Your task to perform on an android device: add a contact Image 0: 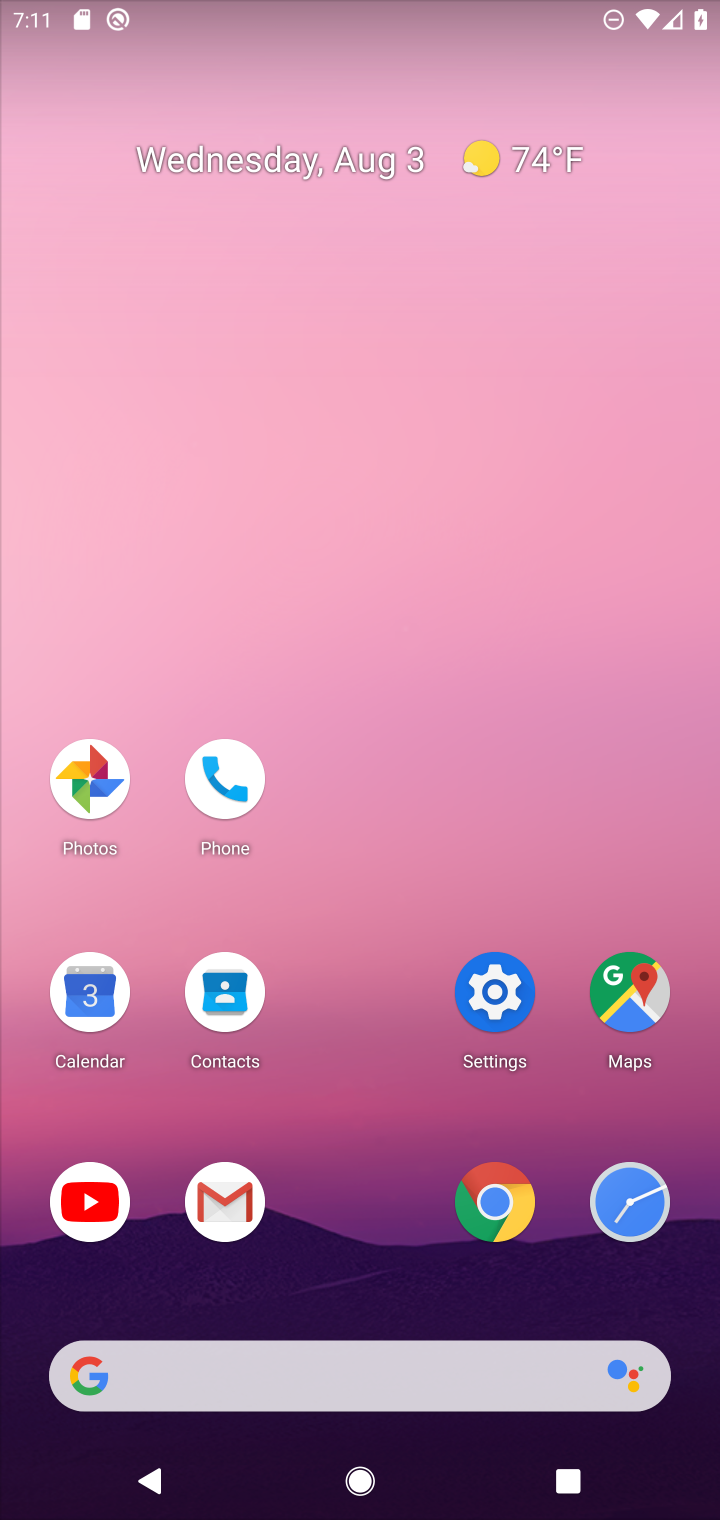
Step 0: click (227, 991)
Your task to perform on an android device: add a contact Image 1: 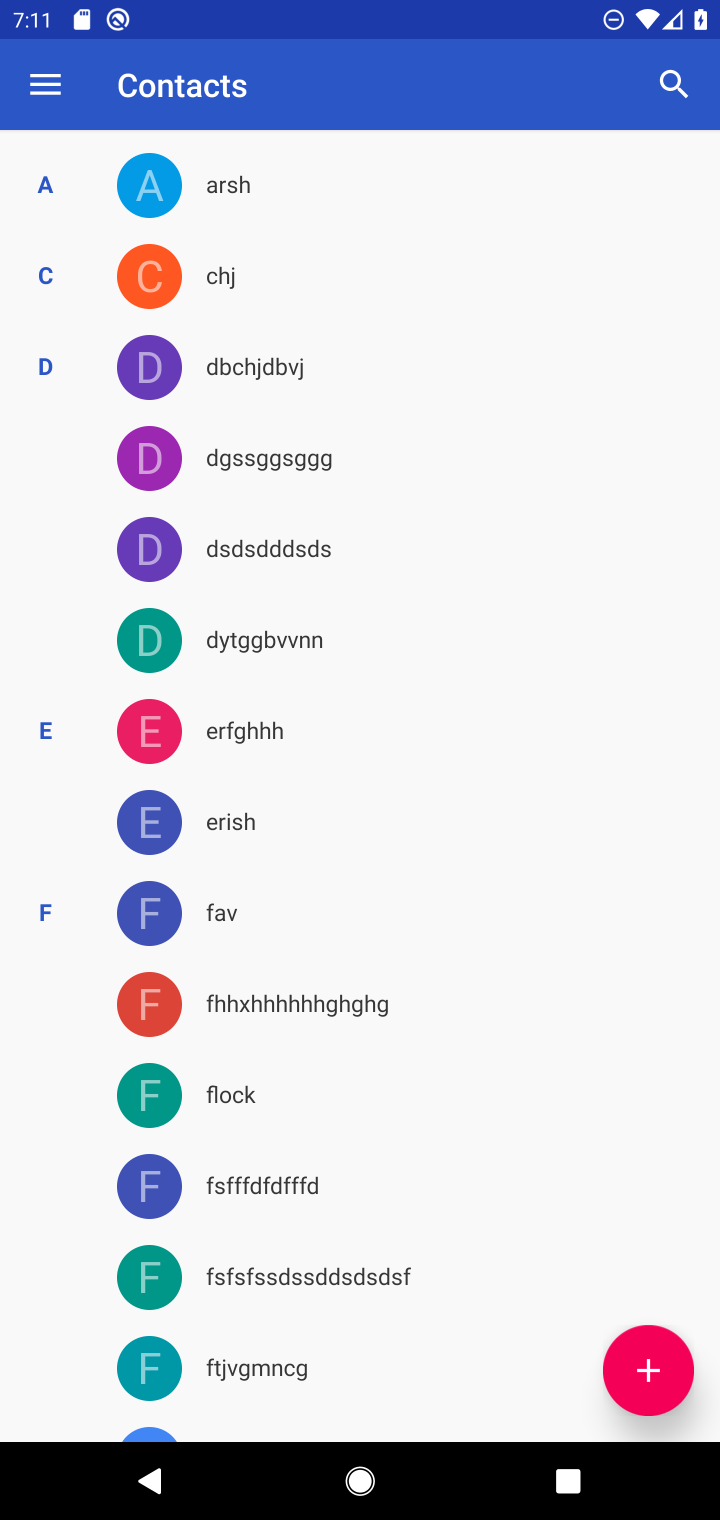
Step 1: click (647, 1370)
Your task to perform on an android device: add a contact Image 2: 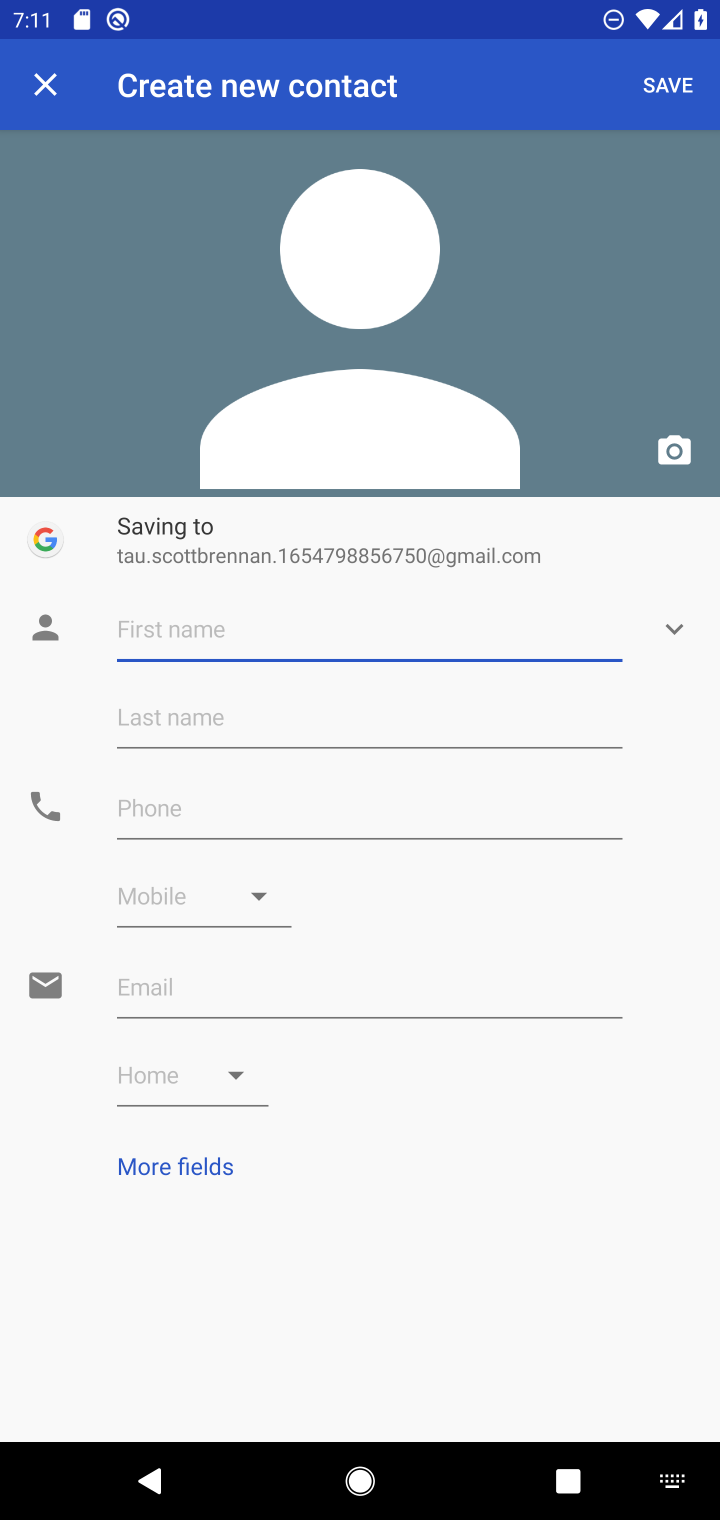
Step 2: type "iut"
Your task to perform on an android device: add a contact Image 3: 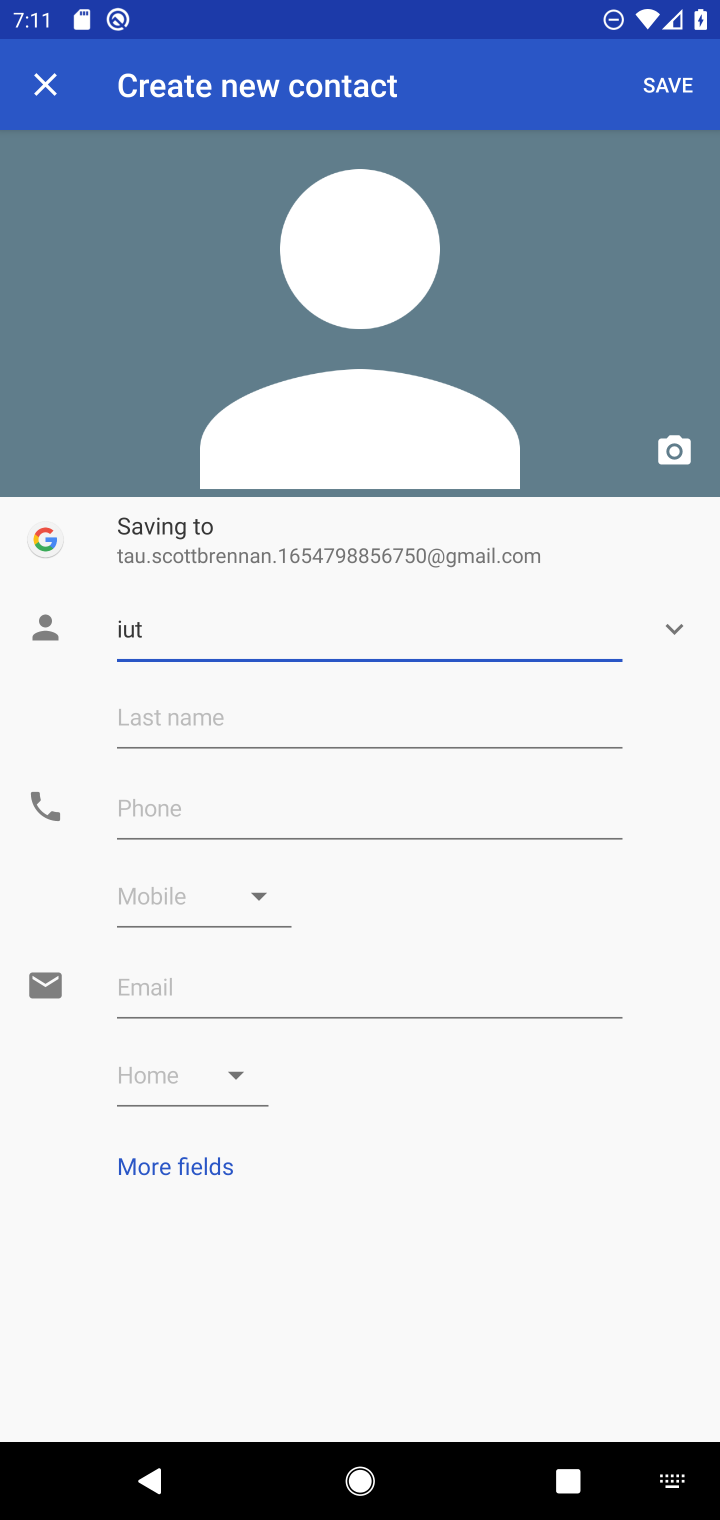
Step 3: click (223, 800)
Your task to perform on an android device: add a contact Image 4: 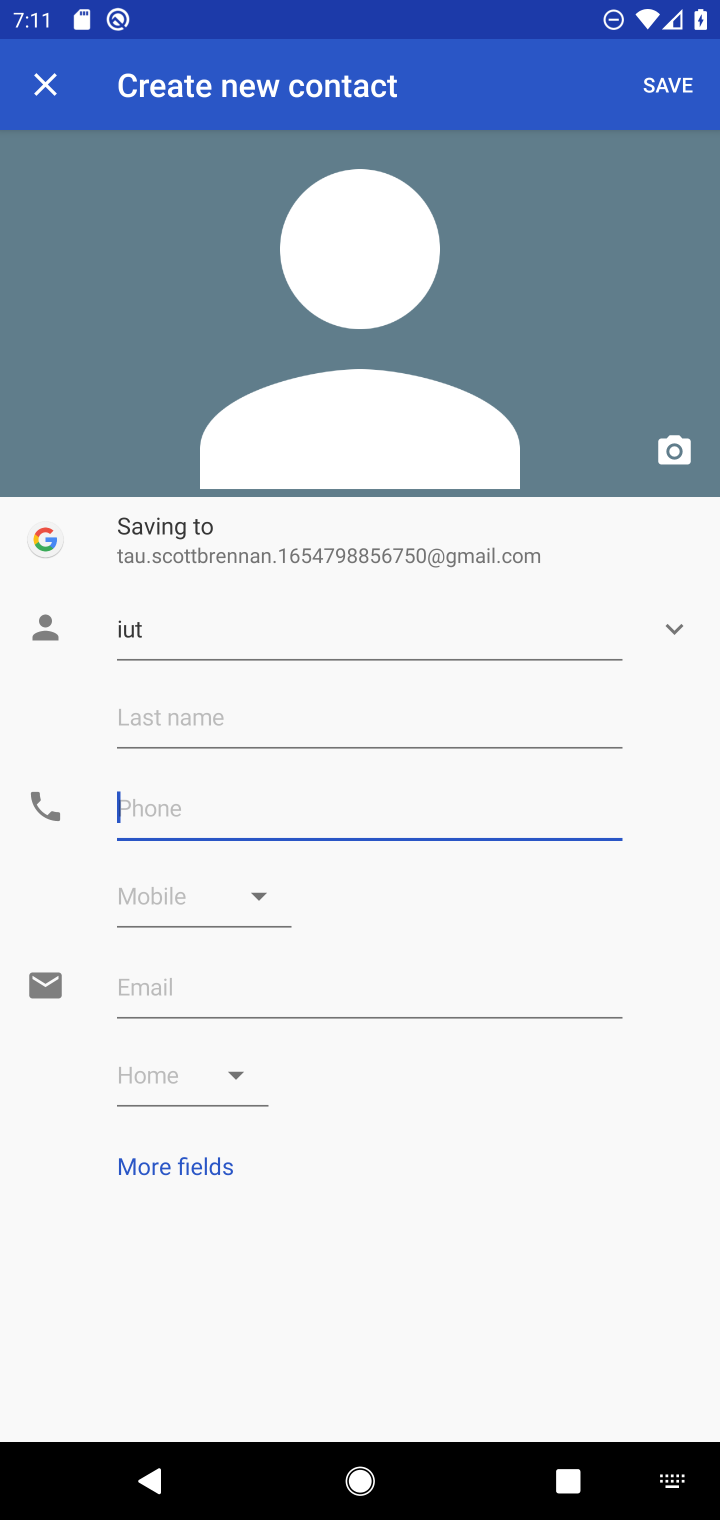
Step 4: type "567656"
Your task to perform on an android device: add a contact Image 5: 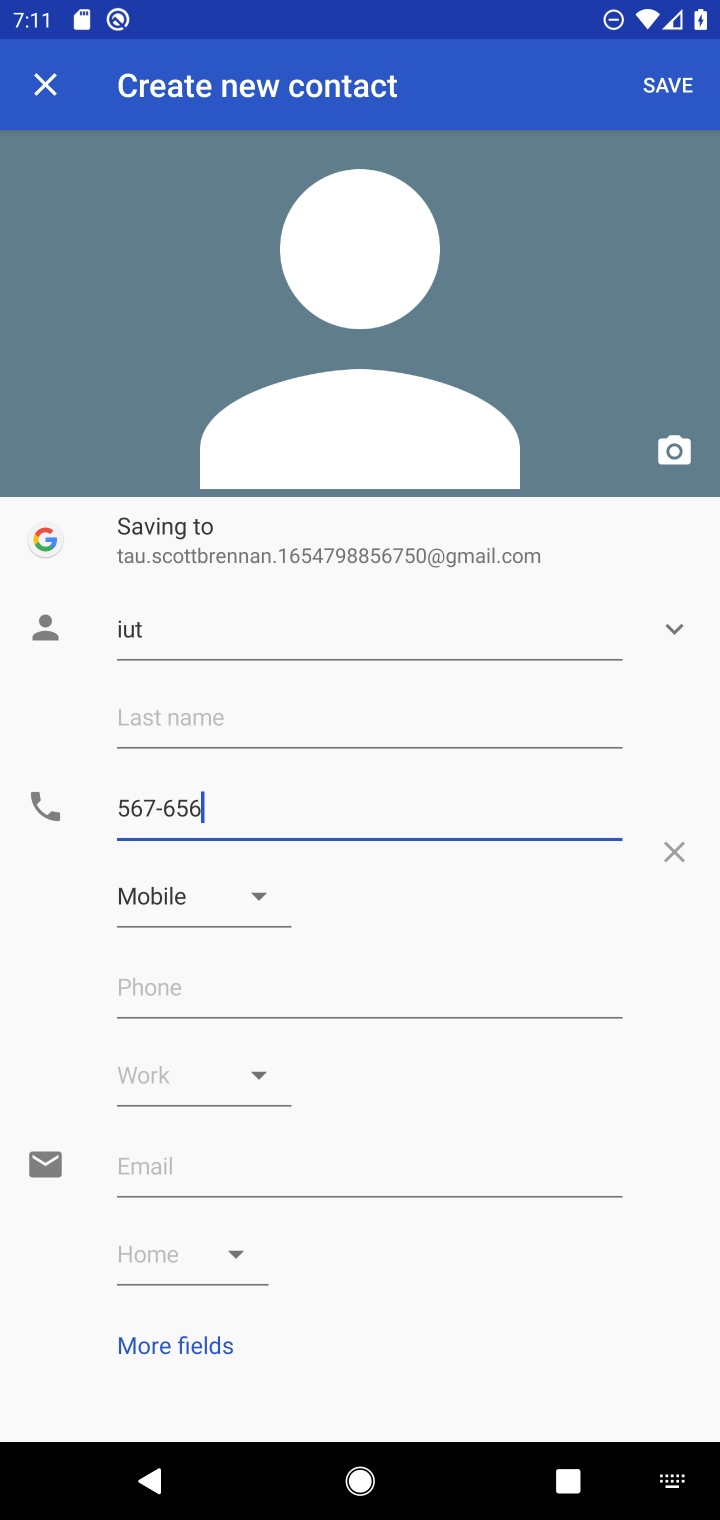
Step 5: click (668, 80)
Your task to perform on an android device: add a contact Image 6: 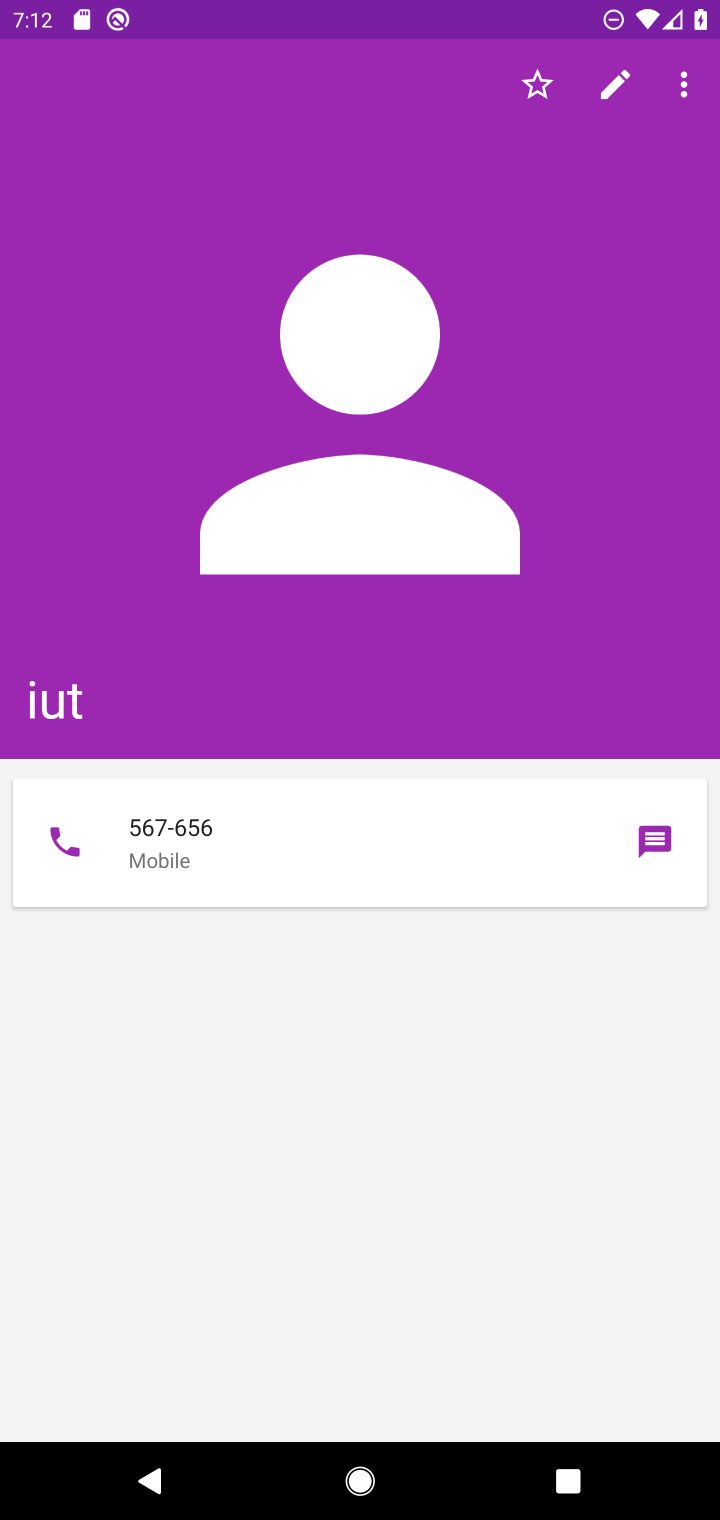
Step 6: task complete